Your task to perform on an android device: check android version Image 0: 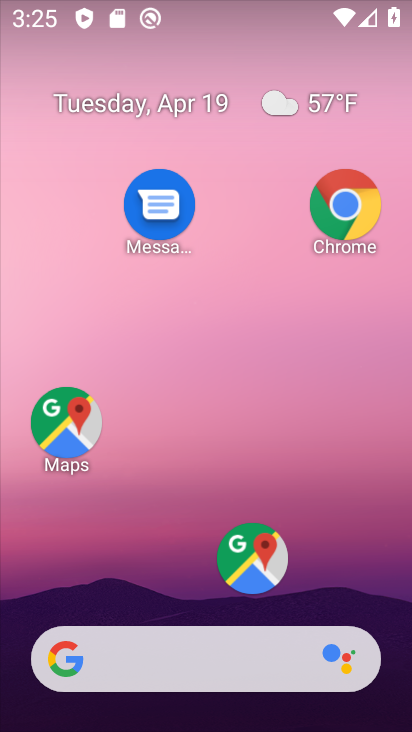
Step 0: drag from (158, 594) to (288, 209)
Your task to perform on an android device: check android version Image 1: 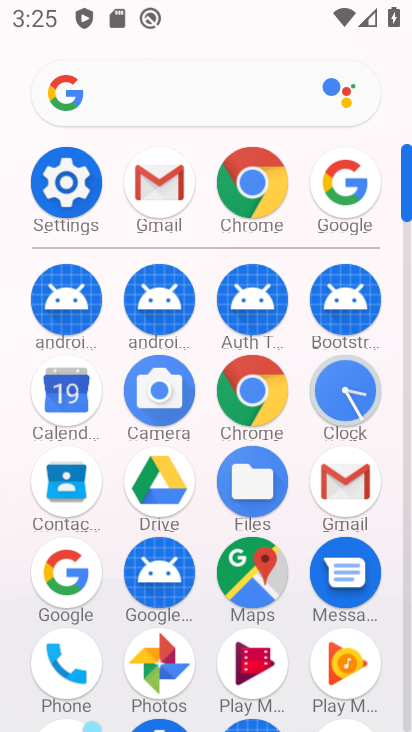
Step 1: drag from (215, 647) to (299, 209)
Your task to perform on an android device: check android version Image 2: 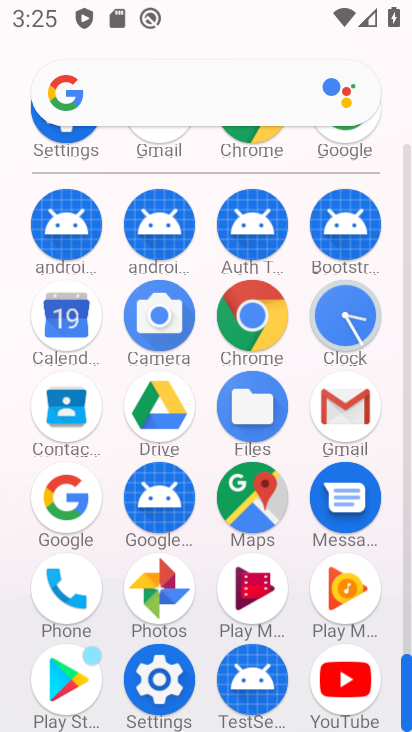
Step 2: click (152, 657)
Your task to perform on an android device: check android version Image 3: 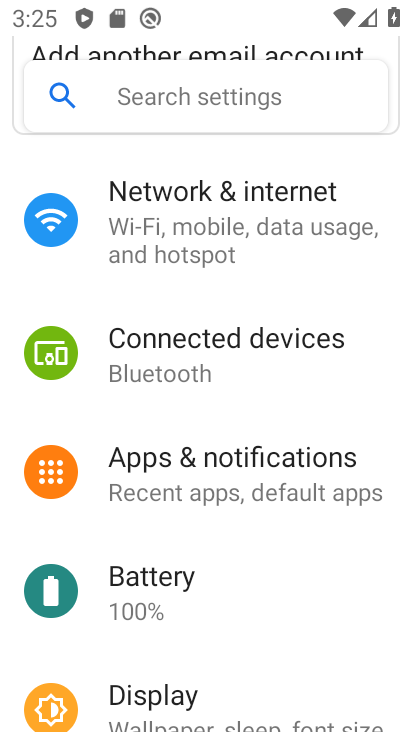
Step 3: drag from (207, 557) to (282, 229)
Your task to perform on an android device: check android version Image 4: 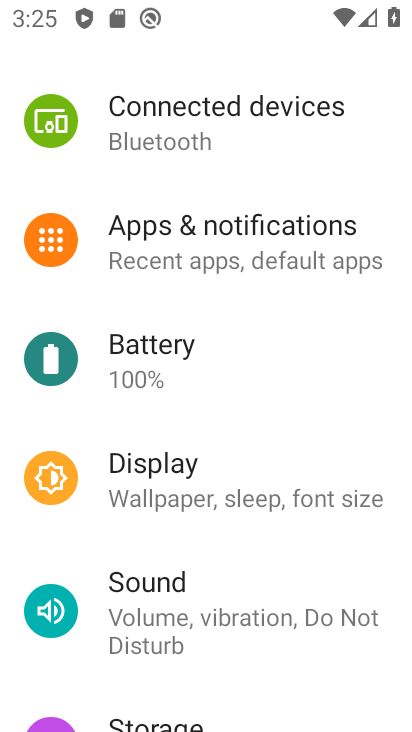
Step 4: drag from (223, 669) to (287, 280)
Your task to perform on an android device: check android version Image 5: 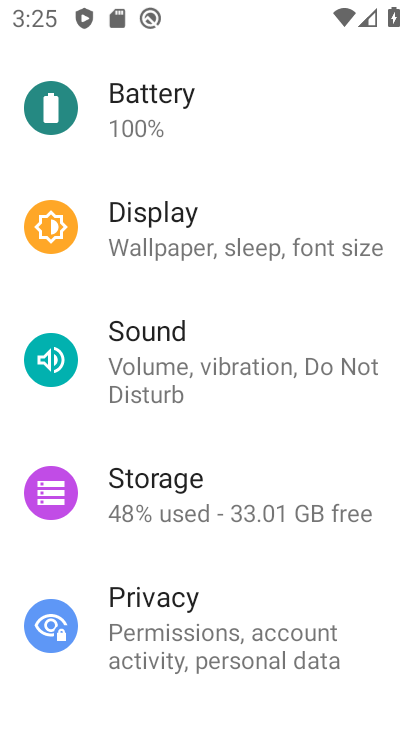
Step 5: drag from (239, 590) to (302, 229)
Your task to perform on an android device: check android version Image 6: 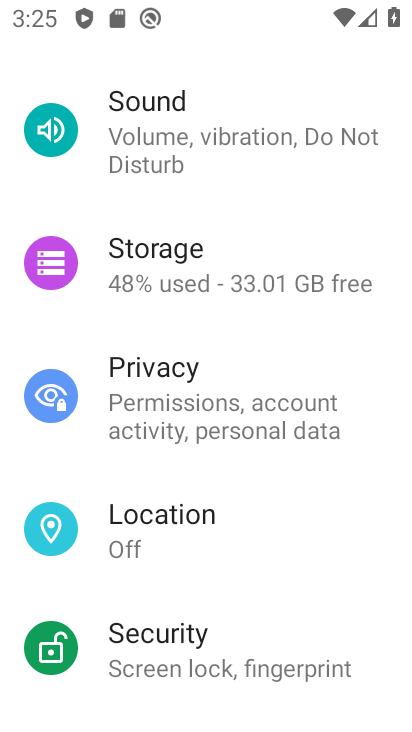
Step 6: drag from (272, 601) to (327, 306)
Your task to perform on an android device: check android version Image 7: 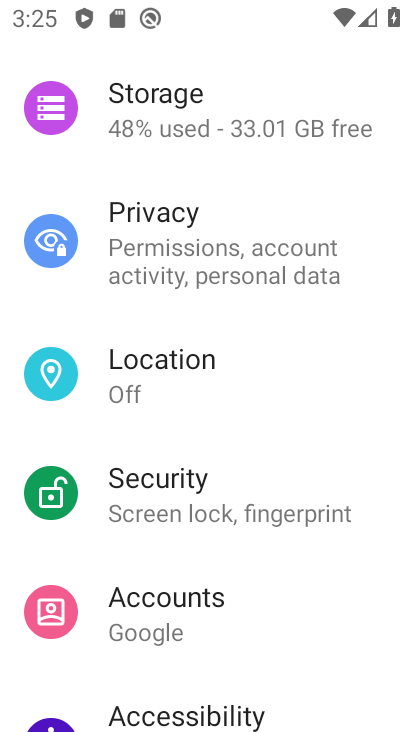
Step 7: drag from (201, 655) to (246, 349)
Your task to perform on an android device: check android version Image 8: 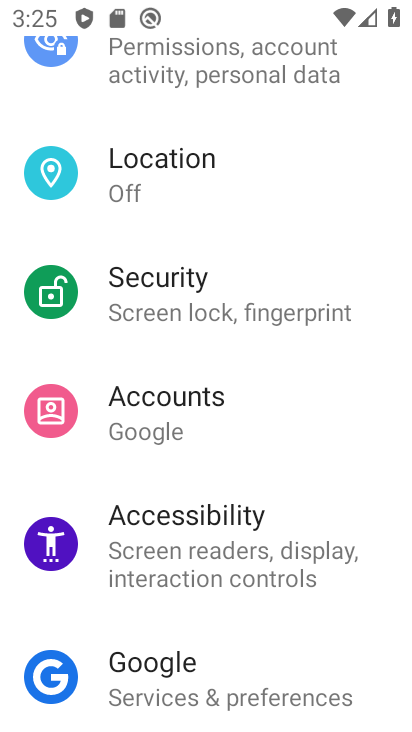
Step 8: drag from (204, 629) to (269, 400)
Your task to perform on an android device: check android version Image 9: 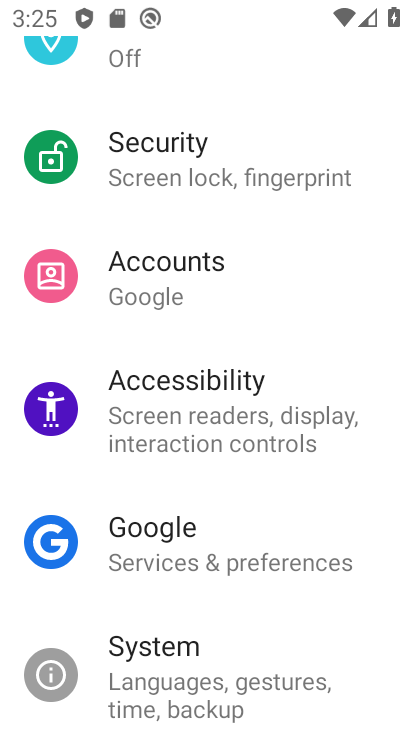
Step 9: drag from (187, 642) to (250, 361)
Your task to perform on an android device: check android version Image 10: 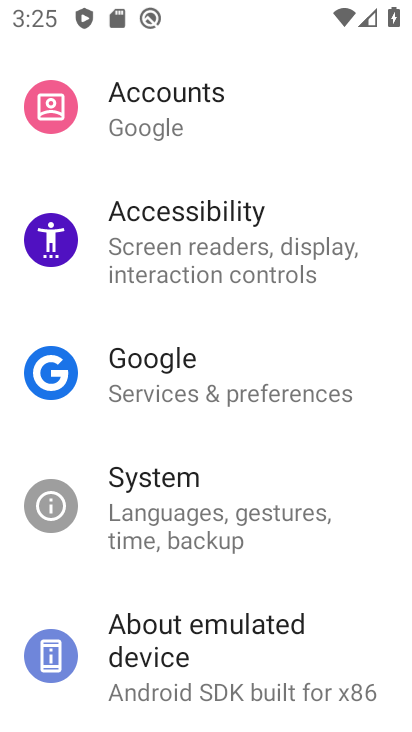
Step 10: click (121, 655)
Your task to perform on an android device: check android version Image 11: 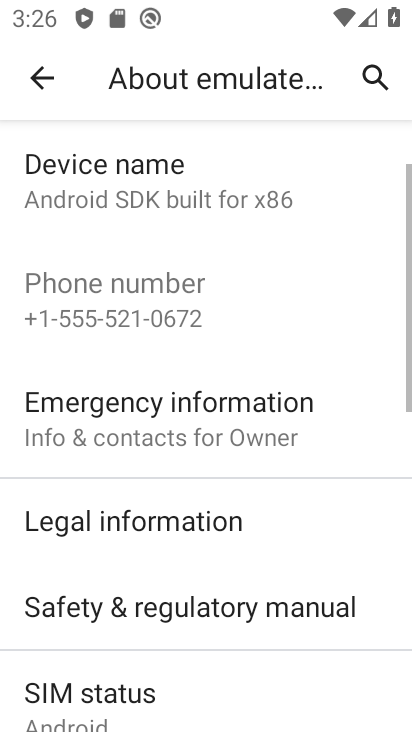
Step 11: drag from (145, 577) to (230, 195)
Your task to perform on an android device: check android version Image 12: 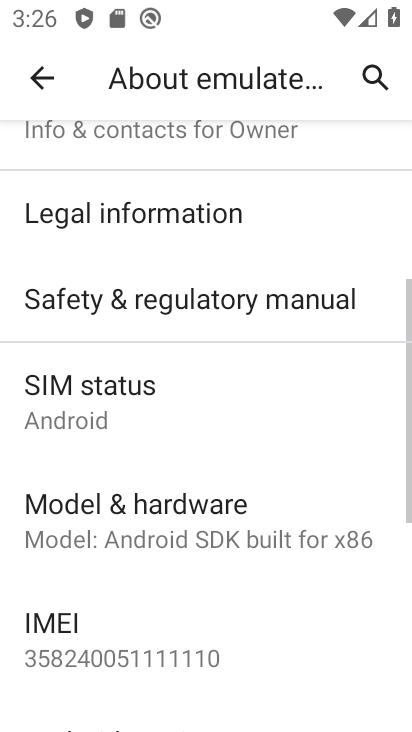
Step 12: drag from (139, 615) to (248, 332)
Your task to perform on an android device: check android version Image 13: 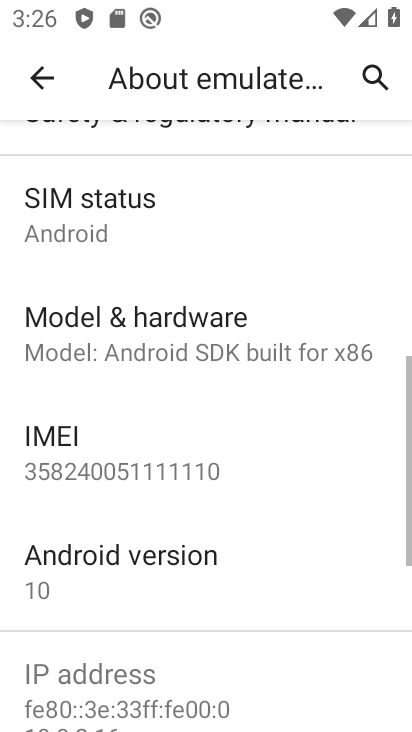
Step 13: click (130, 580)
Your task to perform on an android device: check android version Image 14: 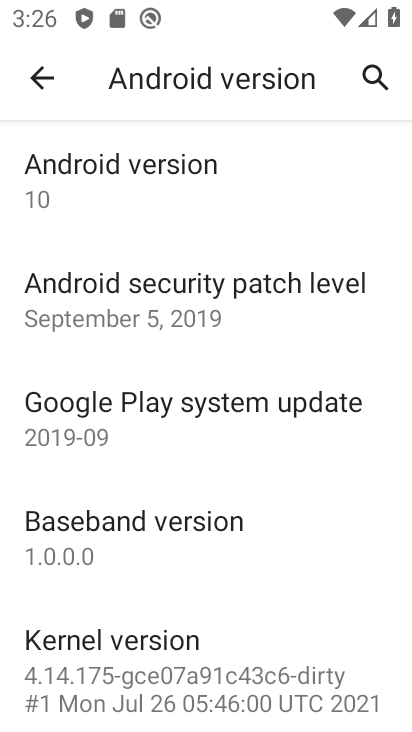
Step 14: click (63, 191)
Your task to perform on an android device: check android version Image 15: 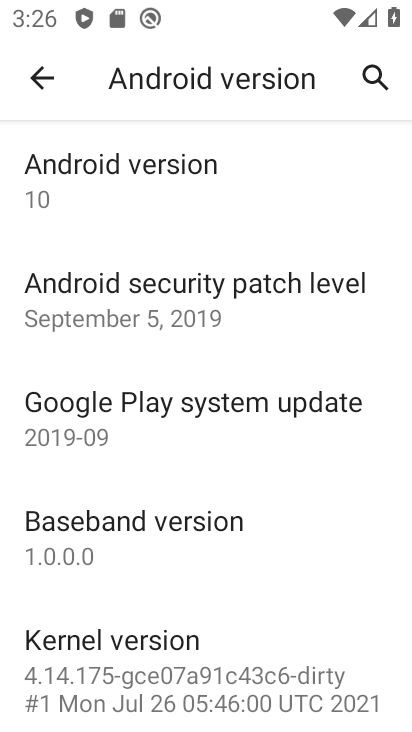
Step 15: click (63, 191)
Your task to perform on an android device: check android version Image 16: 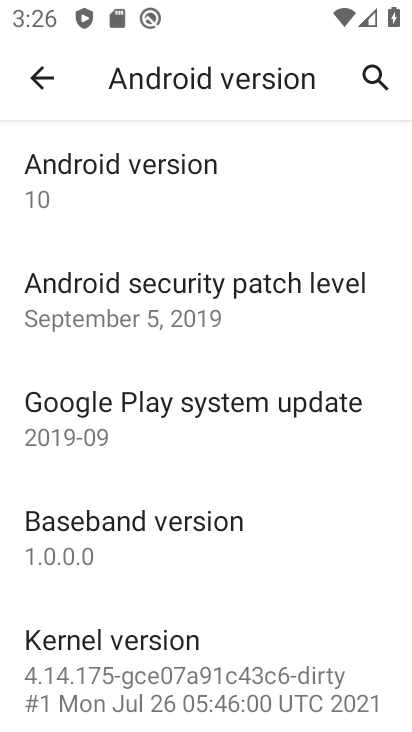
Step 16: task complete